Your task to perform on an android device: change the clock style Image 0: 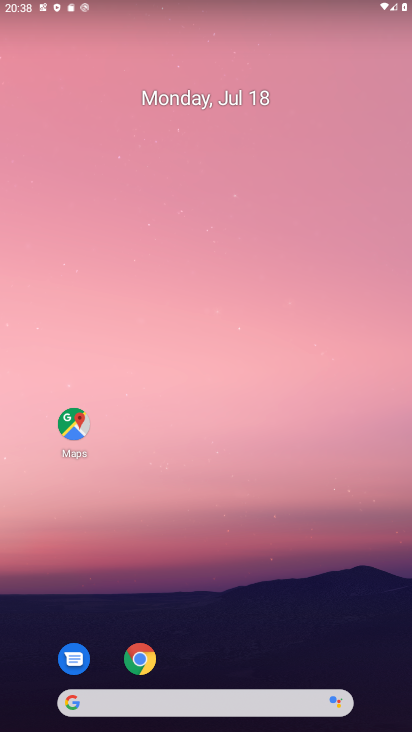
Step 0: drag from (273, 667) to (222, 214)
Your task to perform on an android device: change the clock style Image 1: 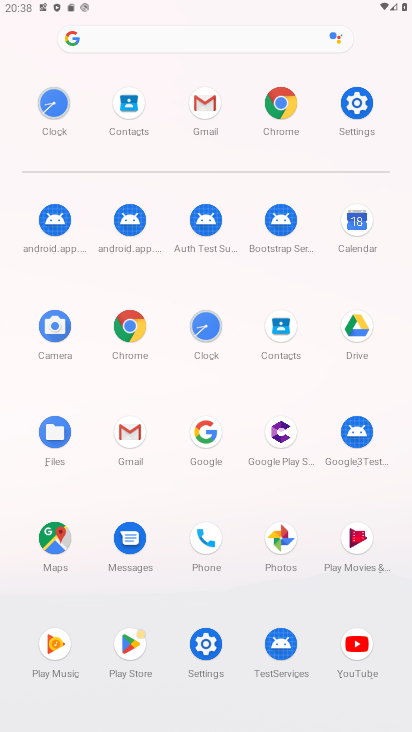
Step 1: click (205, 318)
Your task to perform on an android device: change the clock style Image 2: 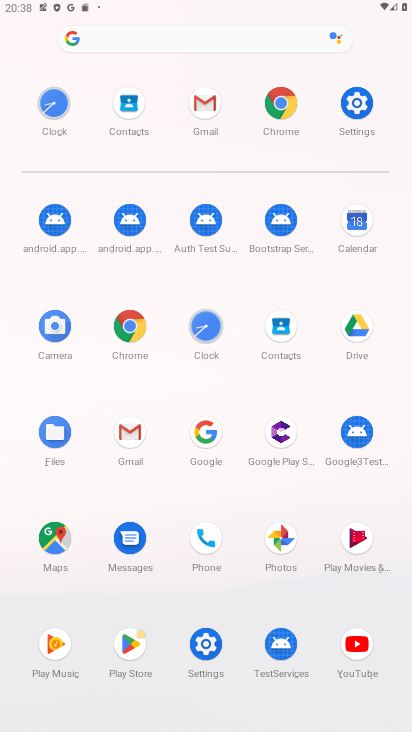
Step 2: click (205, 318)
Your task to perform on an android device: change the clock style Image 3: 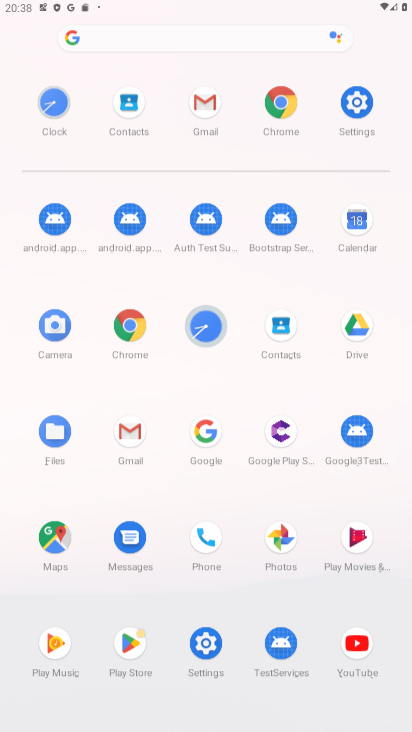
Step 3: click (205, 318)
Your task to perform on an android device: change the clock style Image 4: 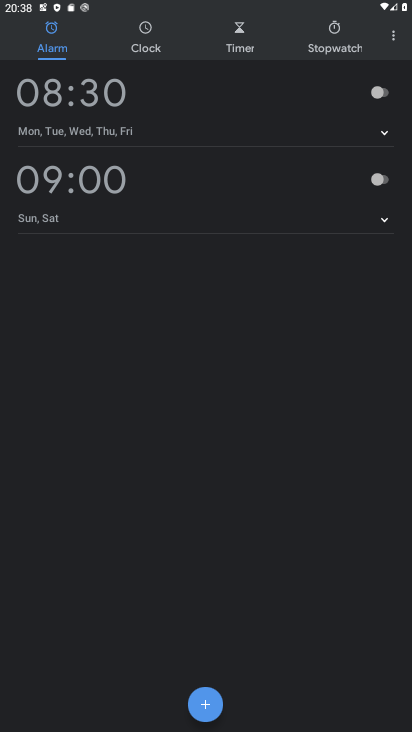
Step 4: click (392, 35)
Your task to perform on an android device: change the clock style Image 5: 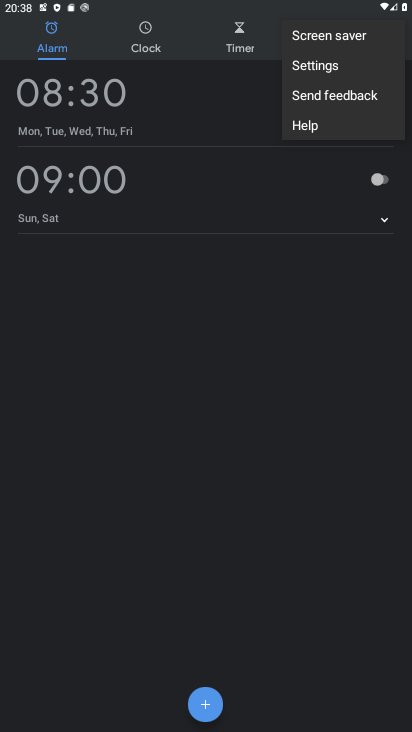
Step 5: click (296, 69)
Your task to perform on an android device: change the clock style Image 6: 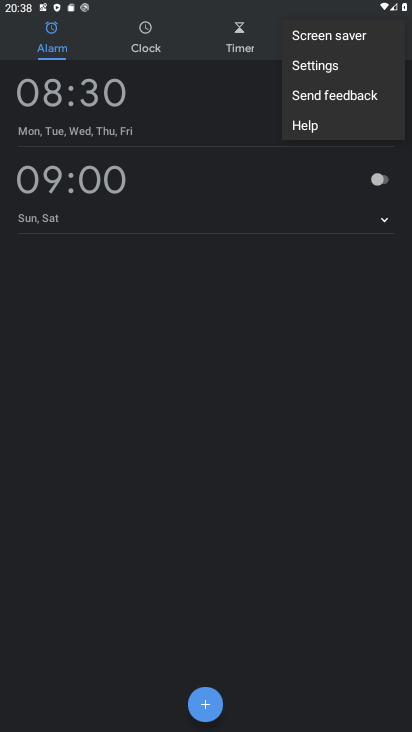
Step 6: click (299, 68)
Your task to perform on an android device: change the clock style Image 7: 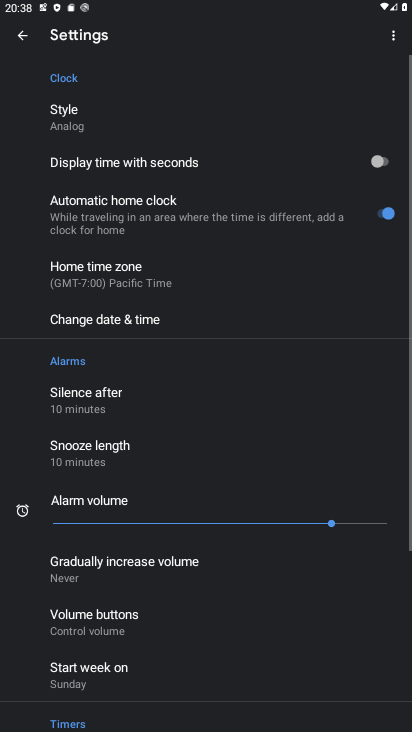
Step 7: click (86, 122)
Your task to perform on an android device: change the clock style Image 8: 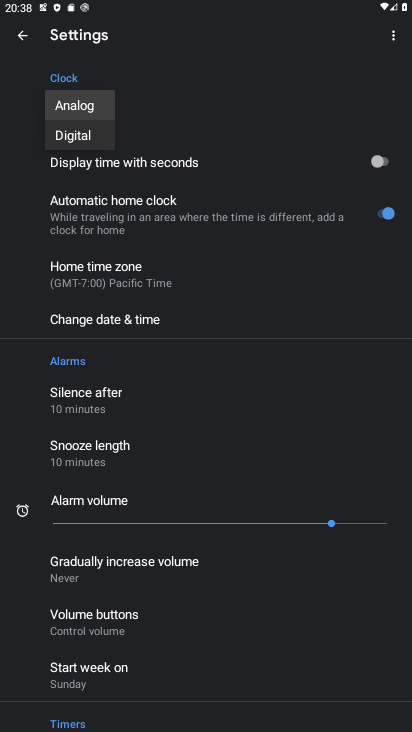
Step 8: click (88, 138)
Your task to perform on an android device: change the clock style Image 9: 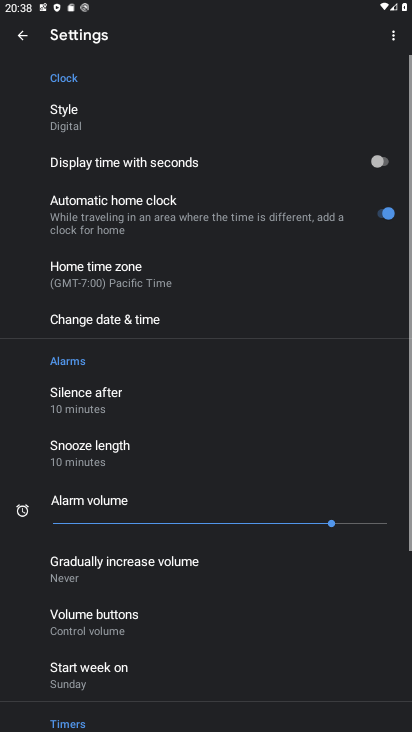
Step 9: task complete